Your task to perform on an android device: What's on my calendar today? Image 0: 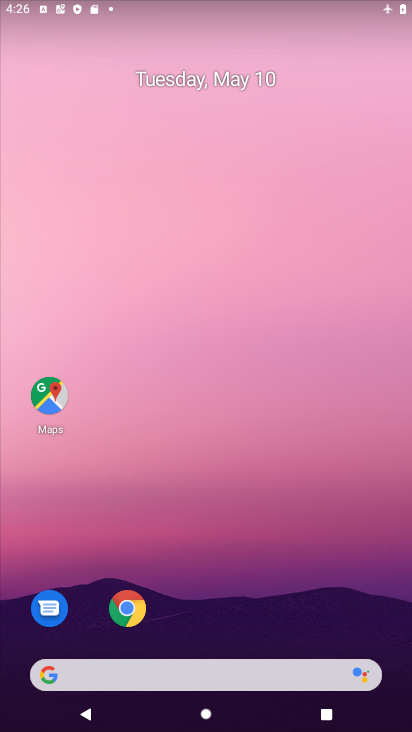
Step 0: drag from (396, 640) to (241, 132)
Your task to perform on an android device: What's on my calendar today? Image 1: 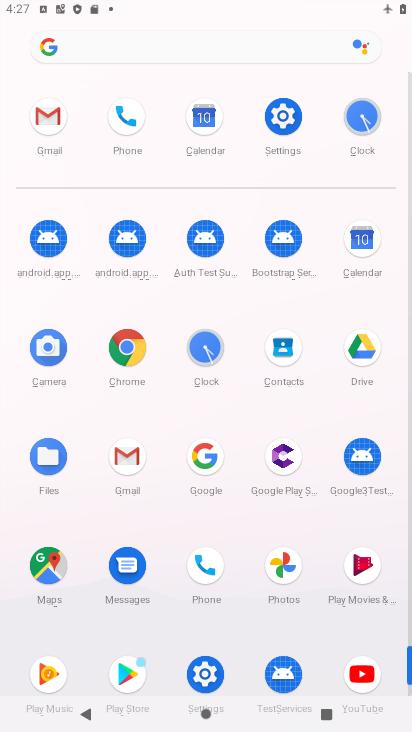
Step 1: click (362, 235)
Your task to perform on an android device: What's on my calendar today? Image 2: 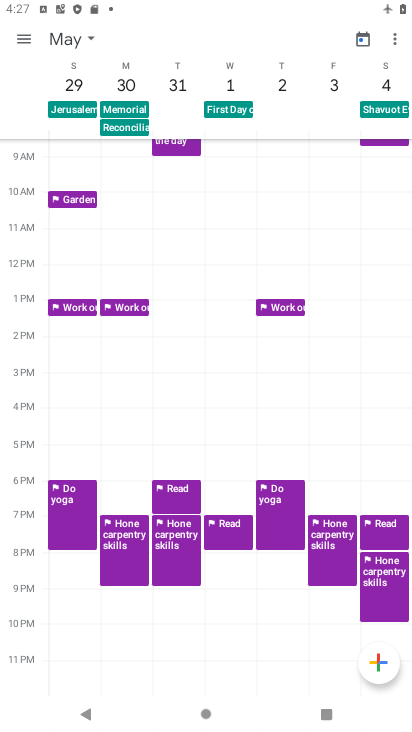
Step 2: click (25, 45)
Your task to perform on an android device: What's on my calendar today? Image 3: 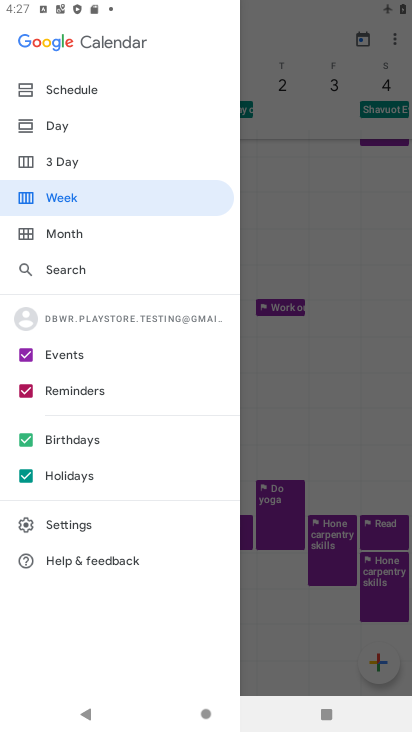
Step 3: click (55, 121)
Your task to perform on an android device: What's on my calendar today? Image 4: 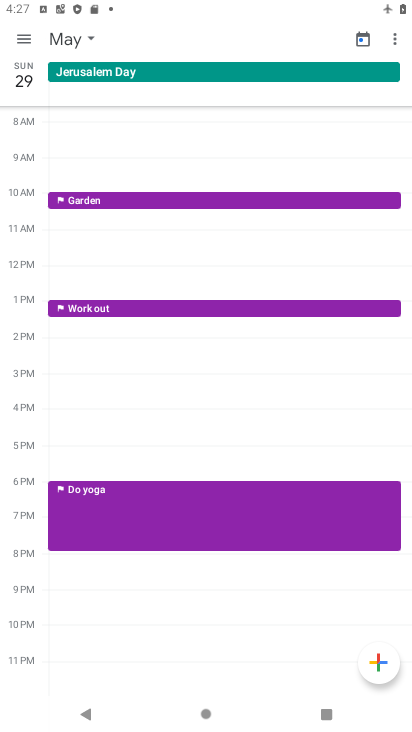
Step 4: click (189, 547)
Your task to perform on an android device: What's on my calendar today? Image 5: 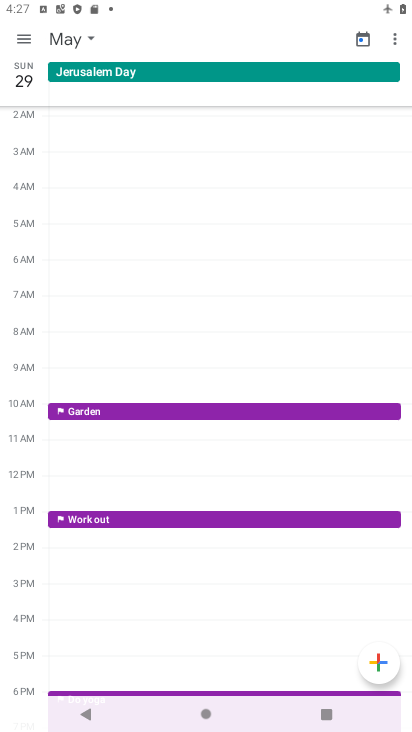
Step 5: task complete